Your task to perform on an android device: check out phone information Image 0: 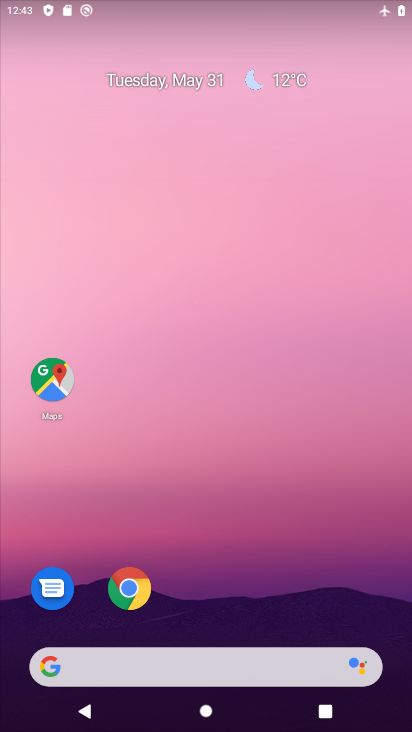
Step 0: drag from (392, 684) to (379, 187)
Your task to perform on an android device: check out phone information Image 1: 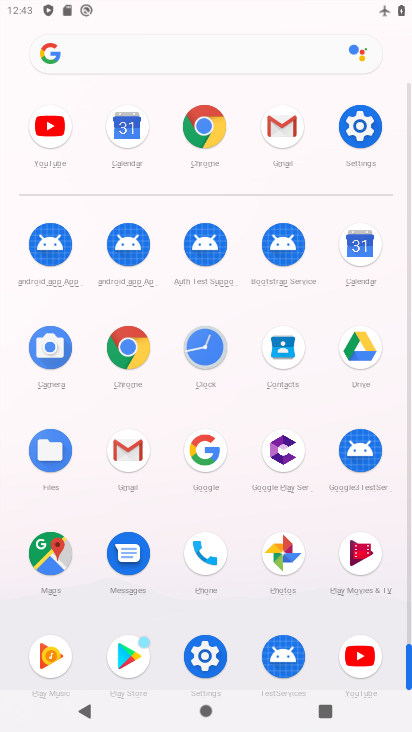
Step 1: click (131, 138)
Your task to perform on an android device: check out phone information Image 2: 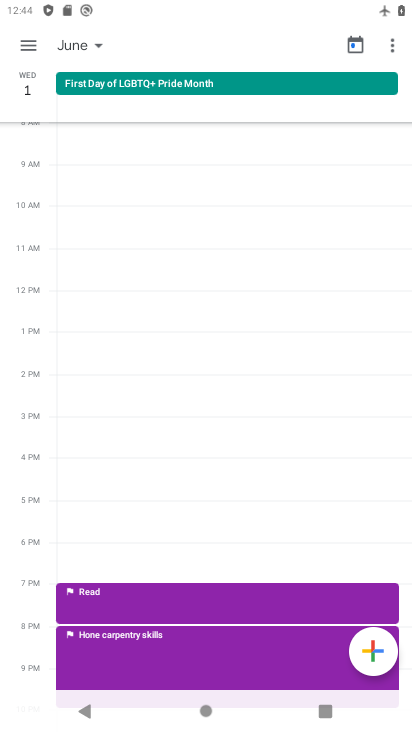
Step 2: press home button
Your task to perform on an android device: check out phone information Image 3: 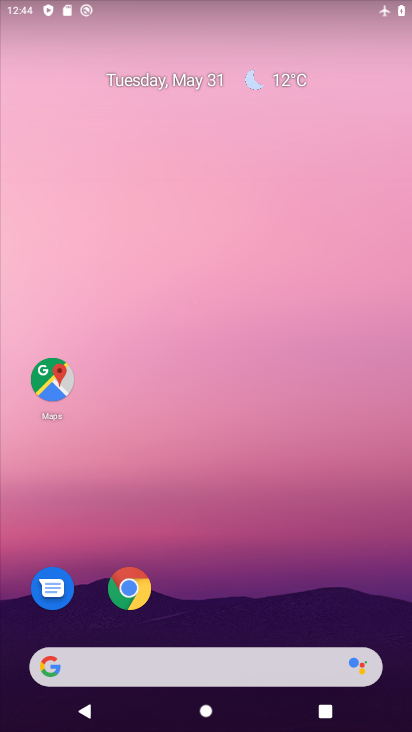
Step 3: drag from (399, 696) to (353, 149)
Your task to perform on an android device: check out phone information Image 4: 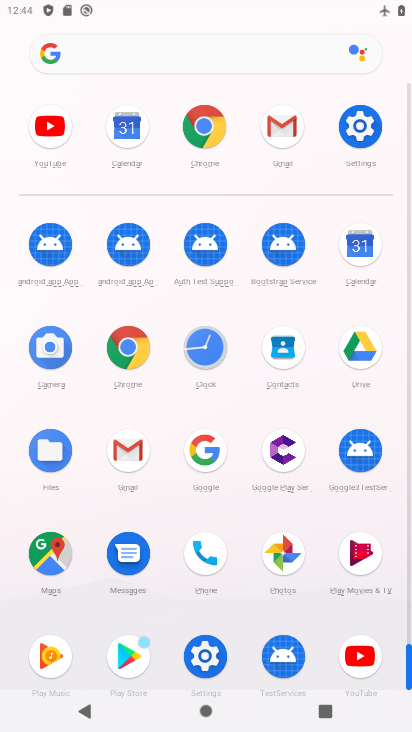
Step 4: click (206, 664)
Your task to perform on an android device: check out phone information Image 5: 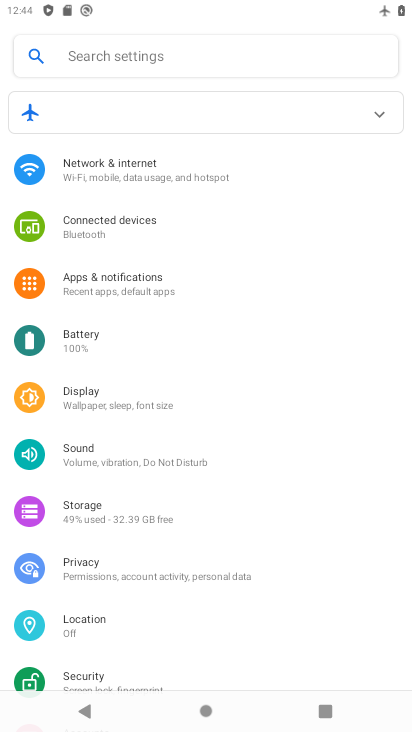
Step 5: drag from (280, 661) to (313, 209)
Your task to perform on an android device: check out phone information Image 6: 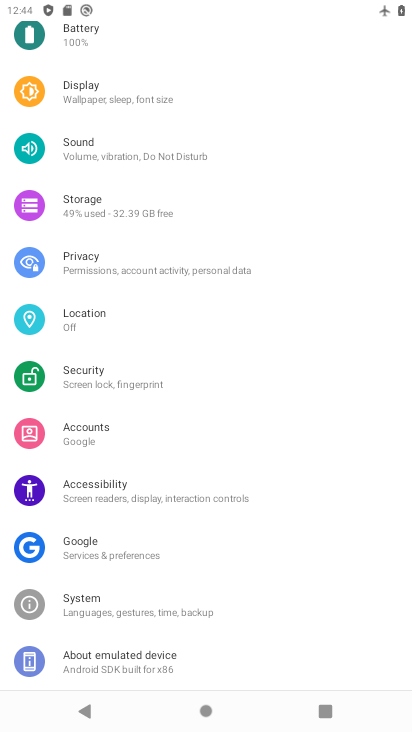
Step 6: drag from (303, 644) to (351, 345)
Your task to perform on an android device: check out phone information Image 7: 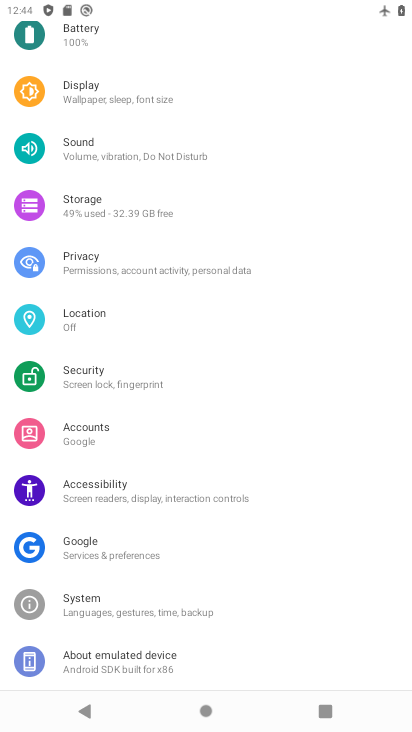
Step 7: click (127, 661)
Your task to perform on an android device: check out phone information Image 8: 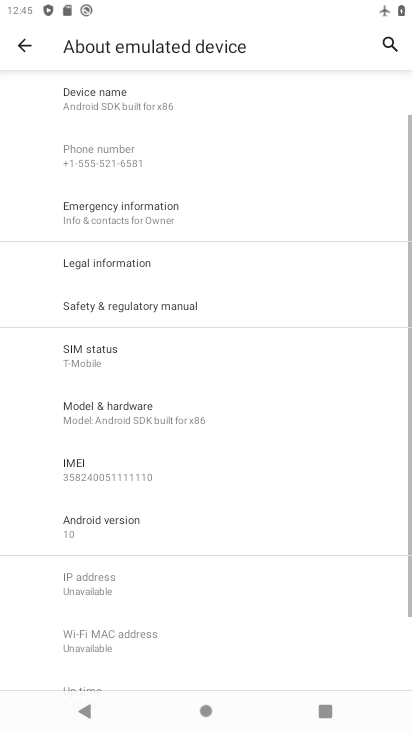
Step 8: task complete